Your task to perform on an android device: Open ESPN.com Image 0: 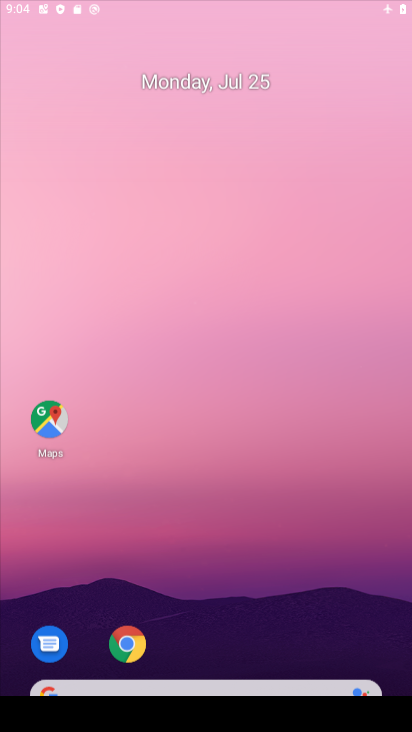
Step 0: drag from (250, 335) to (250, 171)
Your task to perform on an android device: Open ESPN.com Image 1: 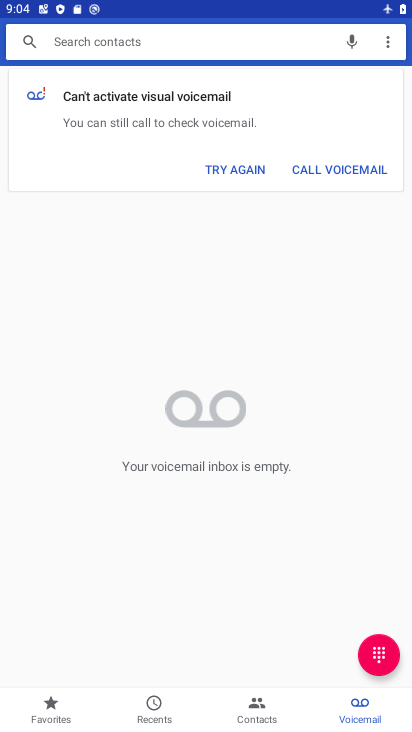
Step 1: press home button
Your task to perform on an android device: Open ESPN.com Image 2: 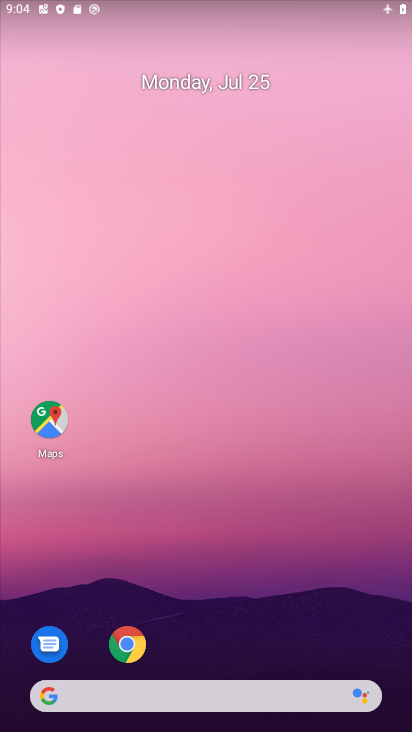
Step 2: drag from (199, 561) to (232, 208)
Your task to perform on an android device: Open ESPN.com Image 3: 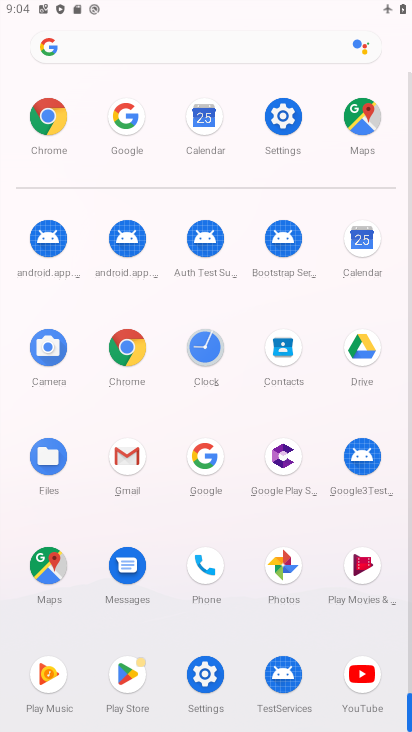
Step 3: click (129, 371)
Your task to perform on an android device: Open ESPN.com Image 4: 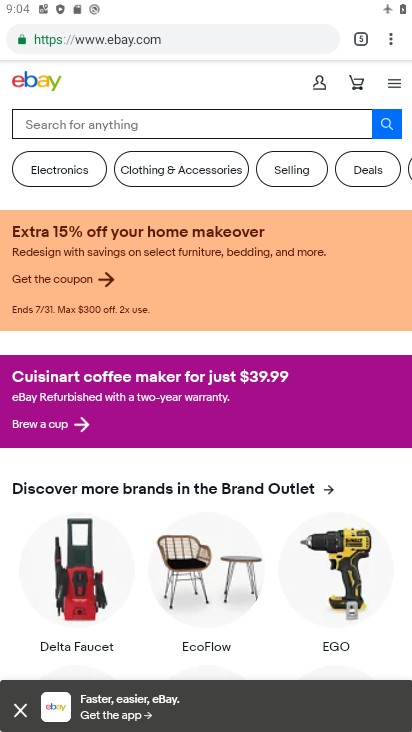
Step 4: click (357, 37)
Your task to perform on an android device: Open ESPN.com Image 5: 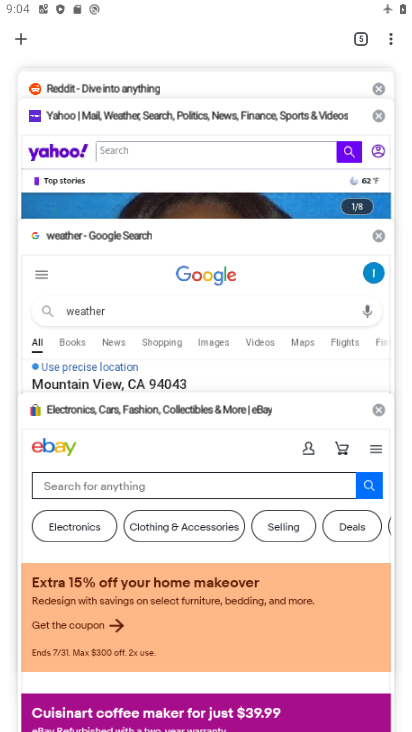
Step 5: click (17, 30)
Your task to perform on an android device: Open ESPN.com Image 6: 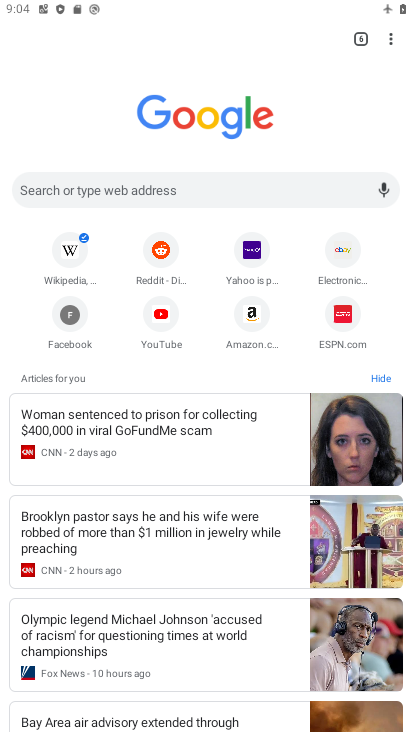
Step 6: click (331, 335)
Your task to perform on an android device: Open ESPN.com Image 7: 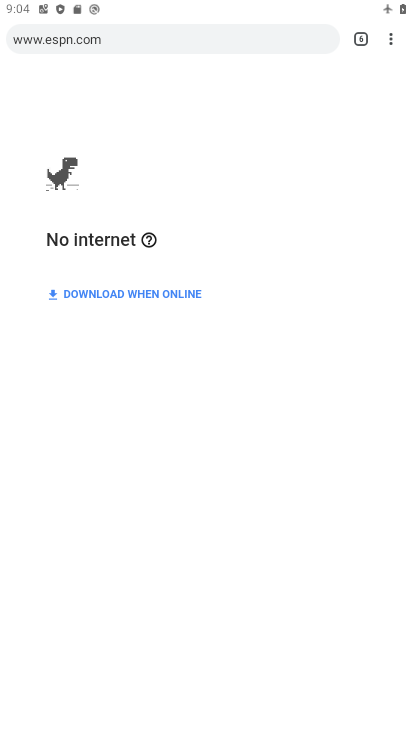
Step 7: click (52, 177)
Your task to perform on an android device: Open ESPN.com Image 8: 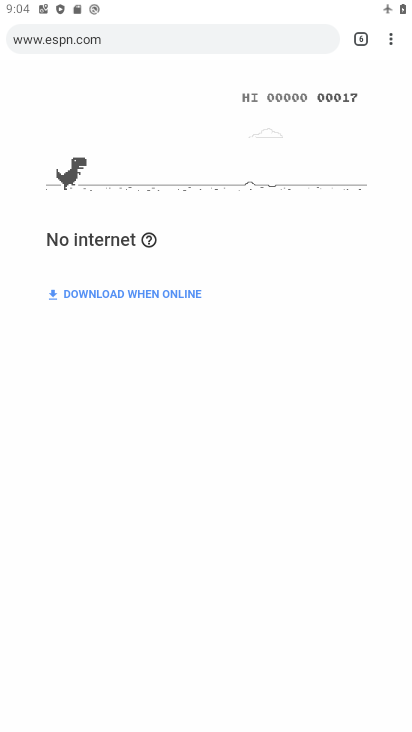
Step 8: click (102, 180)
Your task to perform on an android device: Open ESPN.com Image 9: 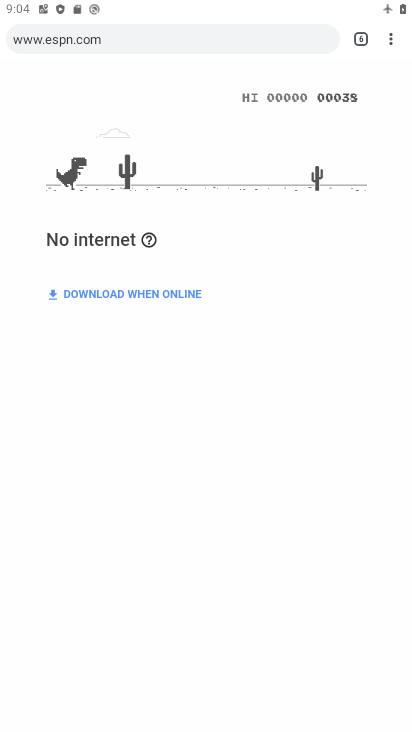
Step 9: click (102, 180)
Your task to perform on an android device: Open ESPN.com Image 10: 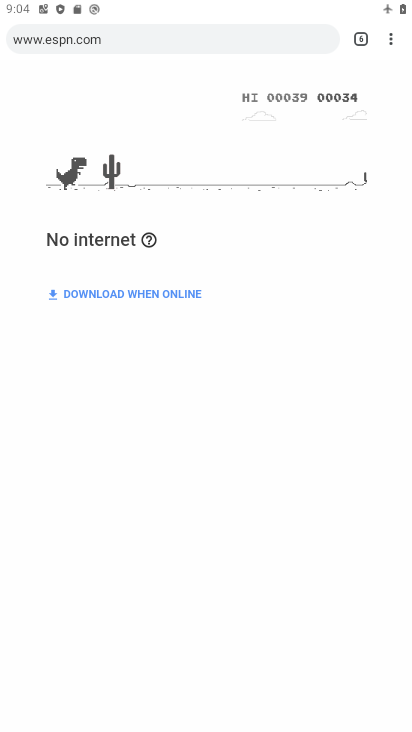
Step 10: click (100, 183)
Your task to perform on an android device: Open ESPN.com Image 11: 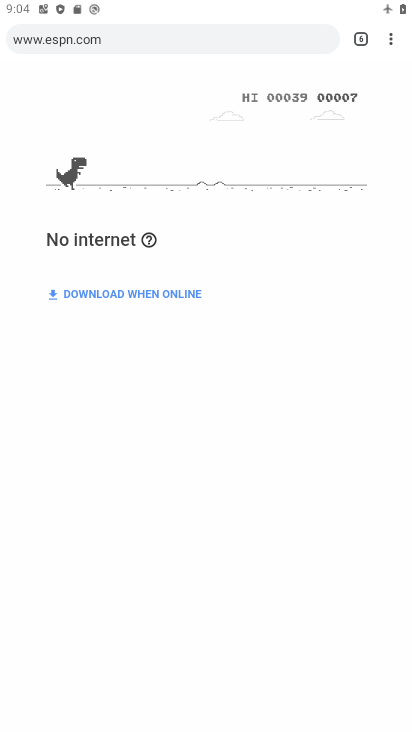
Step 11: click (100, 183)
Your task to perform on an android device: Open ESPN.com Image 12: 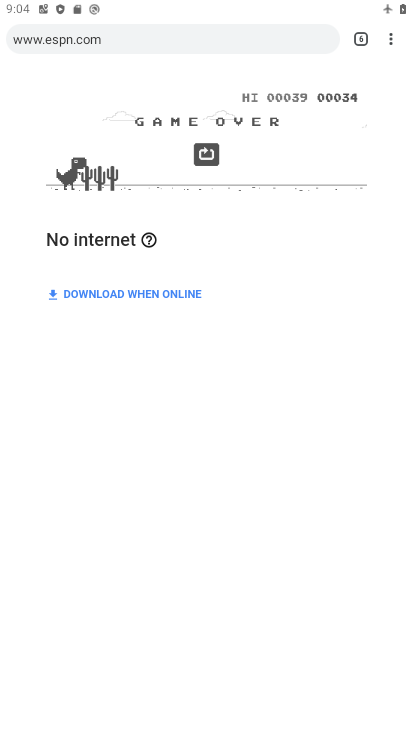
Step 12: click (100, 183)
Your task to perform on an android device: Open ESPN.com Image 13: 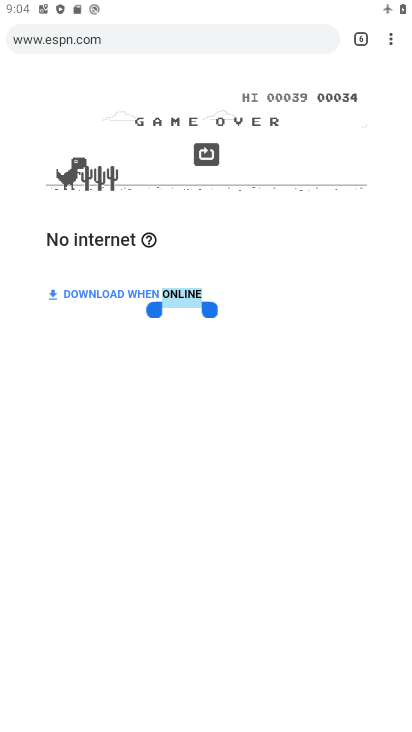
Step 13: click (100, 184)
Your task to perform on an android device: Open ESPN.com Image 14: 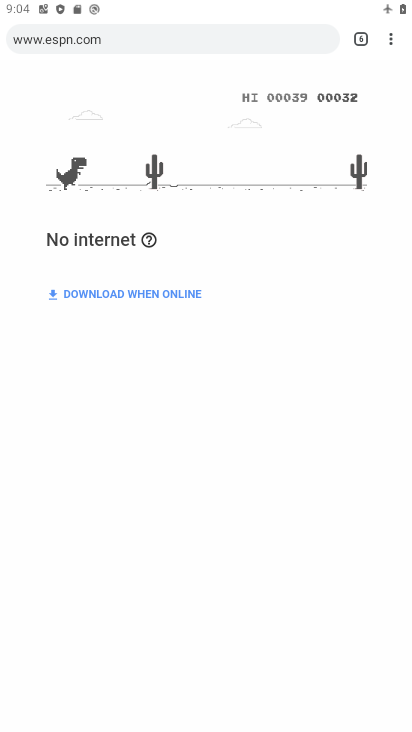
Step 14: click (123, 189)
Your task to perform on an android device: Open ESPN.com Image 15: 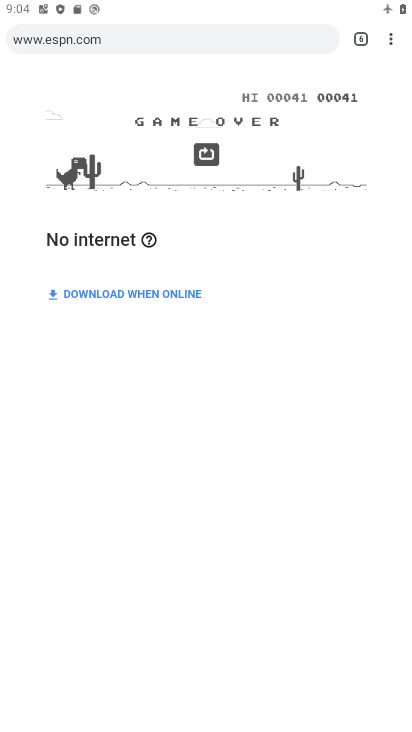
Step 15: click (123, 190)
Your task to perform on an android device: Open ESPN.com Image 16: 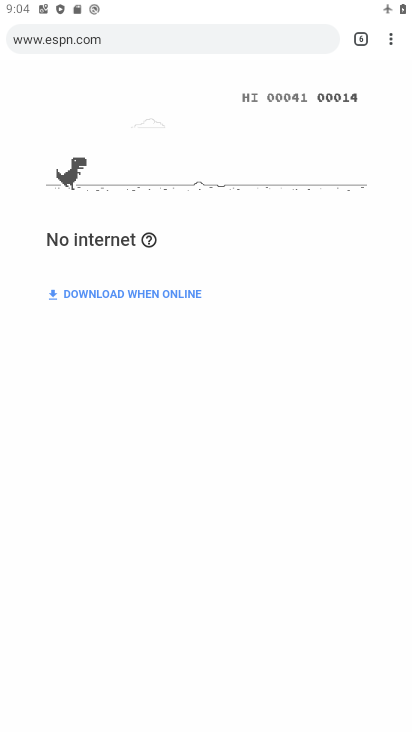
Step 16: click (123, 190)
Your task to perform on an android device: Open ESPN.com Image 17: 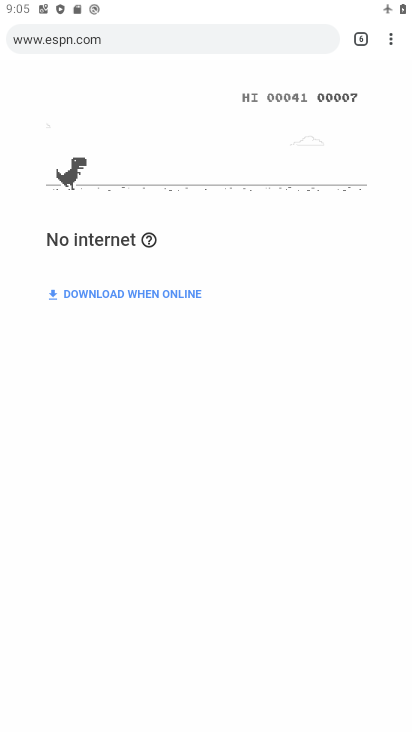
Step 17: task complete